Your task to perform on an android device: Go to wifi settings Image 0: 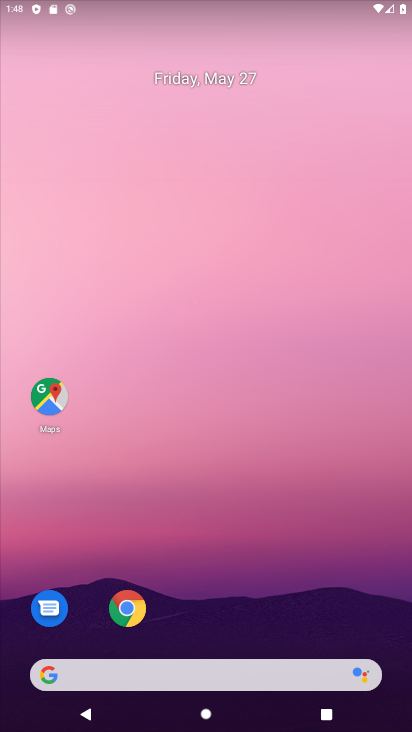
Step 0: drag from (191, 651) to (286, 208)
Your task to perform on an android device: Go to wifi settings Image 1: 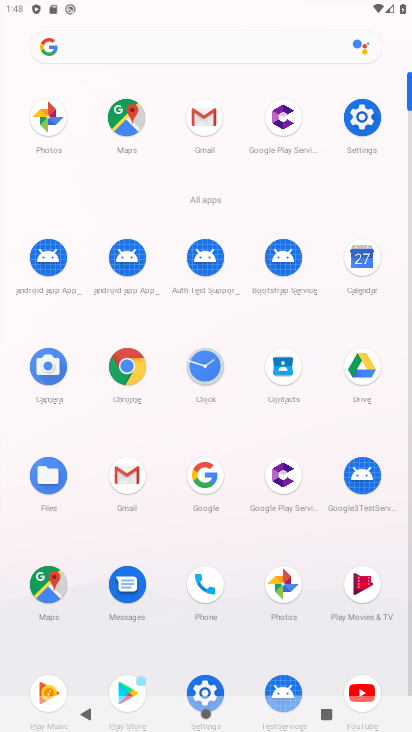
Step 1: drag from (231, 643) to (300, 410)
Your task to perform on an android device: Go to wifi settings Image 2: 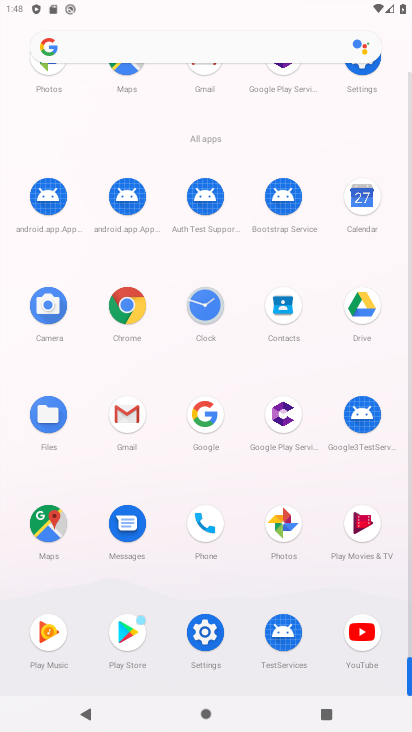
Step 2: click (191, 633)
Your task to perform on an android device: Go to wifi settings Image 3: 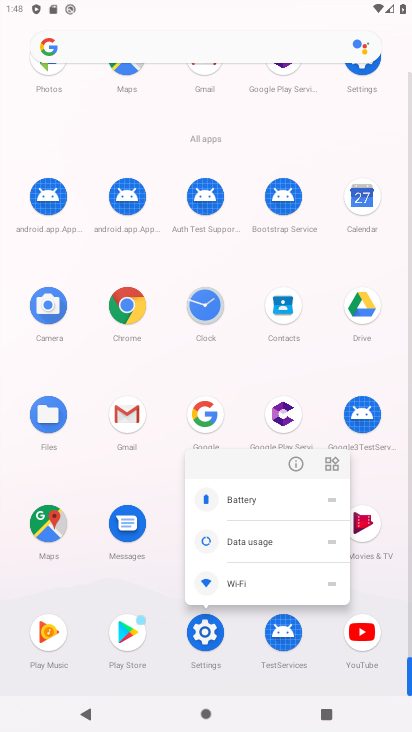
Step 3: click (191, 633)
Your task to perform on an android device: Go to wifi settings Image 4: 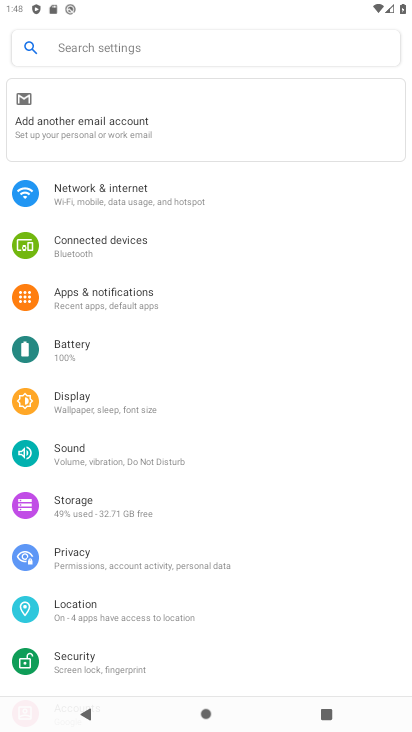
Step 4: click (161, 209)
Your task to perform on an android device: Go to wifi settings Image 5: 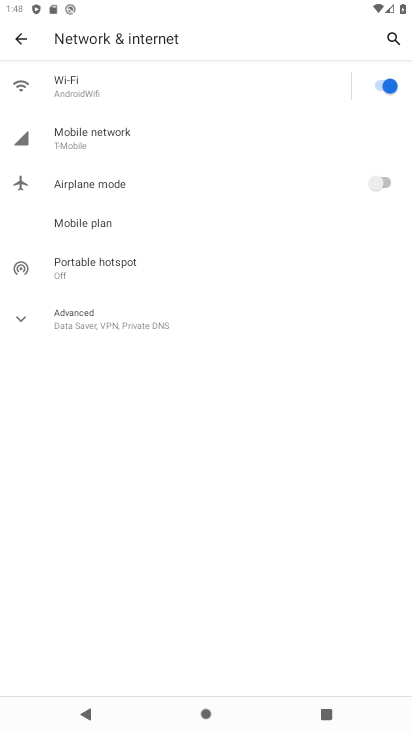
Step 5: click (171, 100)
Your task to perform on an android device: Go to wifi settings Image 6: 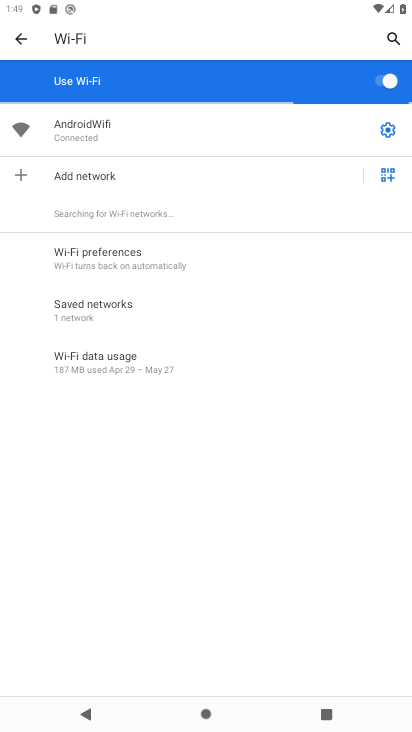
Step 6: task complete